Your task to perform on an android device: Search for sony triple a on target.com, select the first entry, and add it to the cart. Image 0: 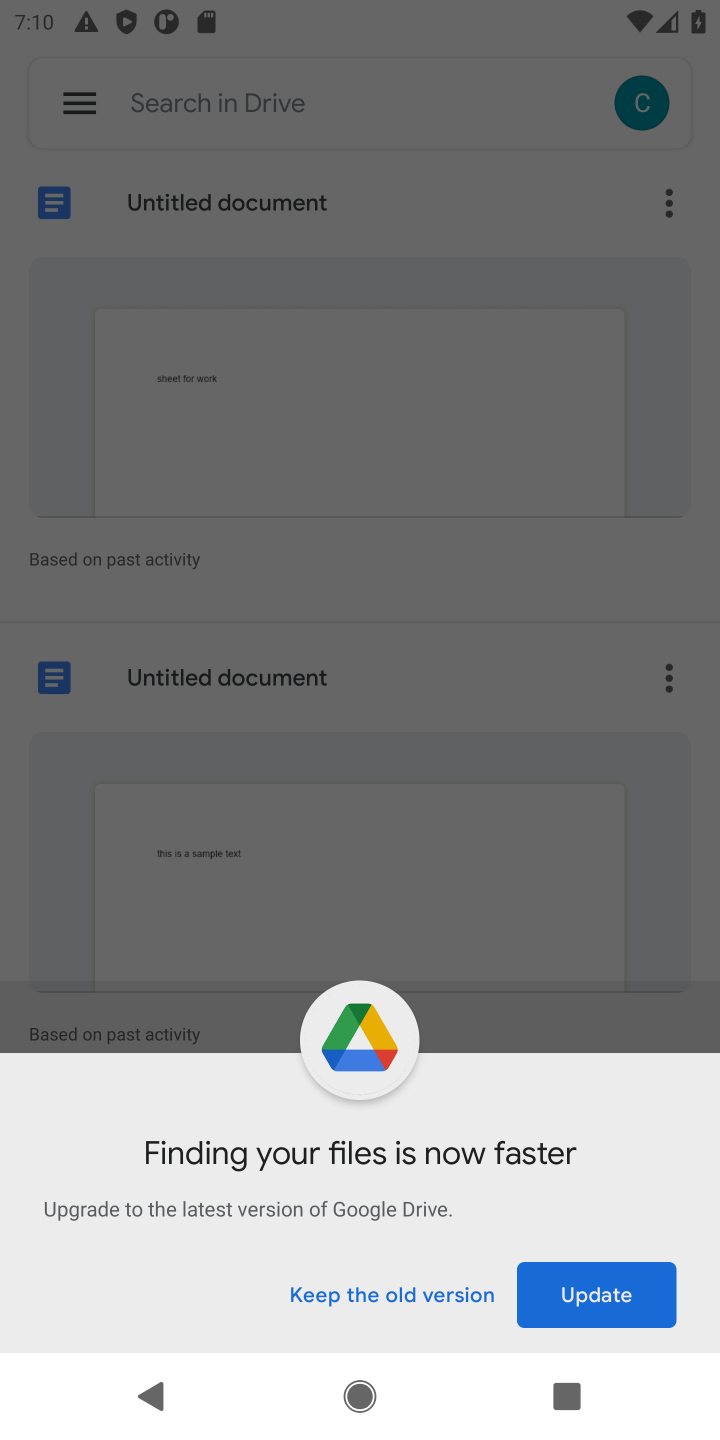
Step 0: press home button
Your task to perform on an android device: Search for sony triple a on target.com, select the first entry, and add it to the cart. Image 1: 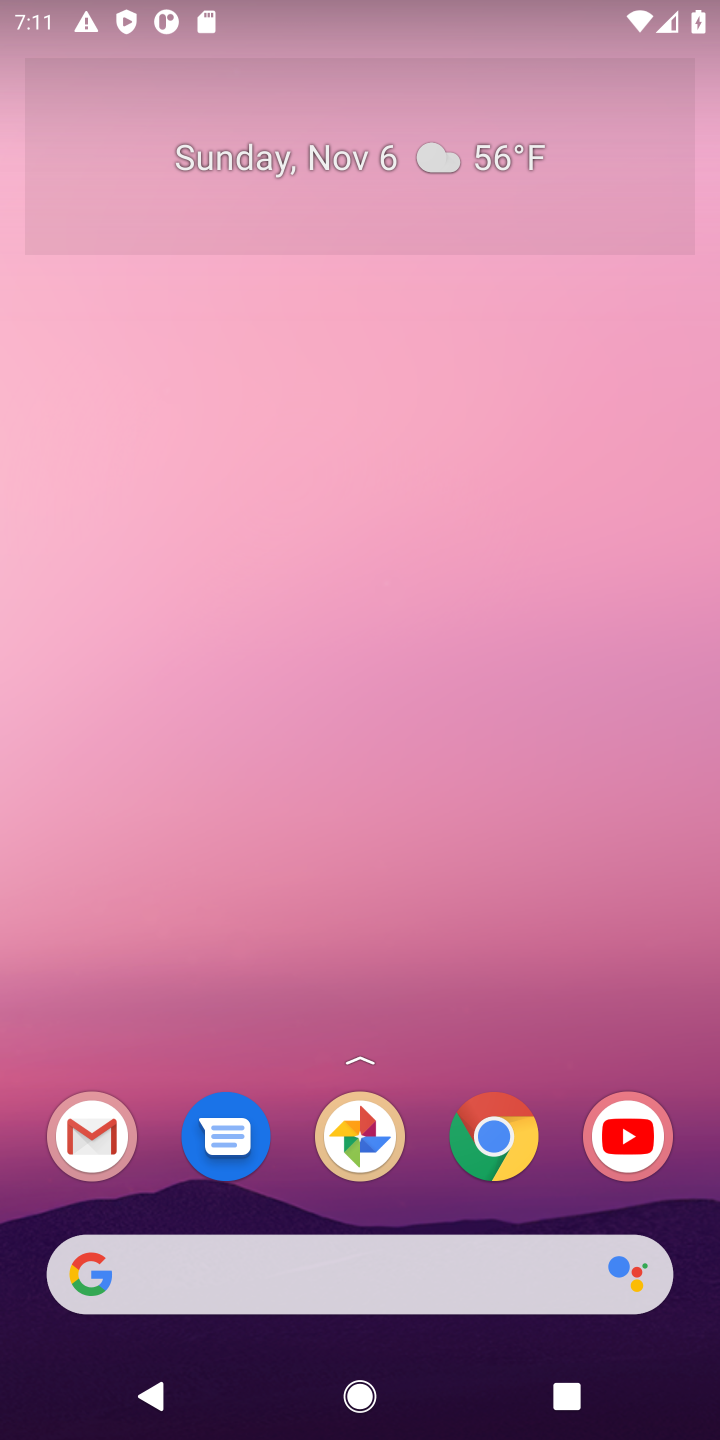
Step 1: click (401, 1261)
Your task to perform on an android device: Search for sony triple a on target.com, select the first entry, and add it to the cart. Image 2: 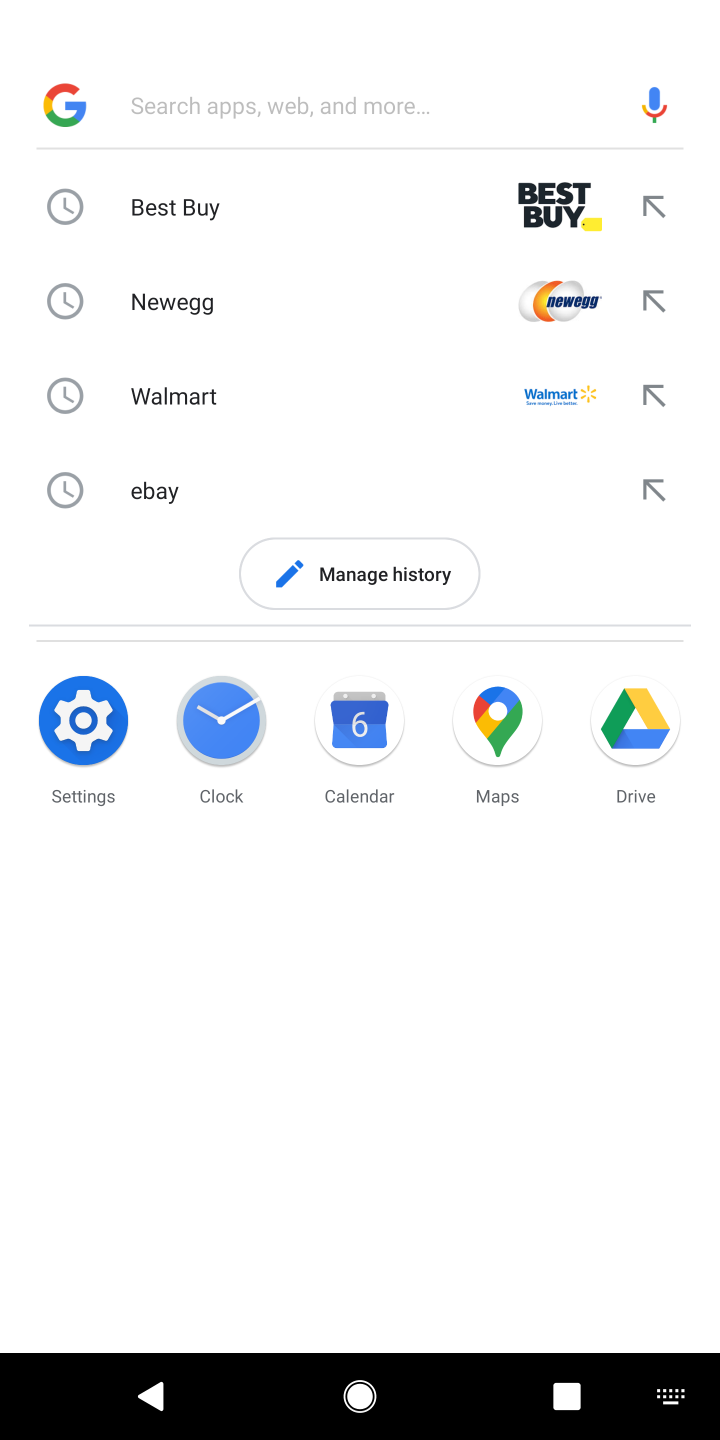
Step 2: type "target"
Your task to perform on an android device: Search for sony triple a on target.com, select the first entry, and add it to the cart. Image 3: 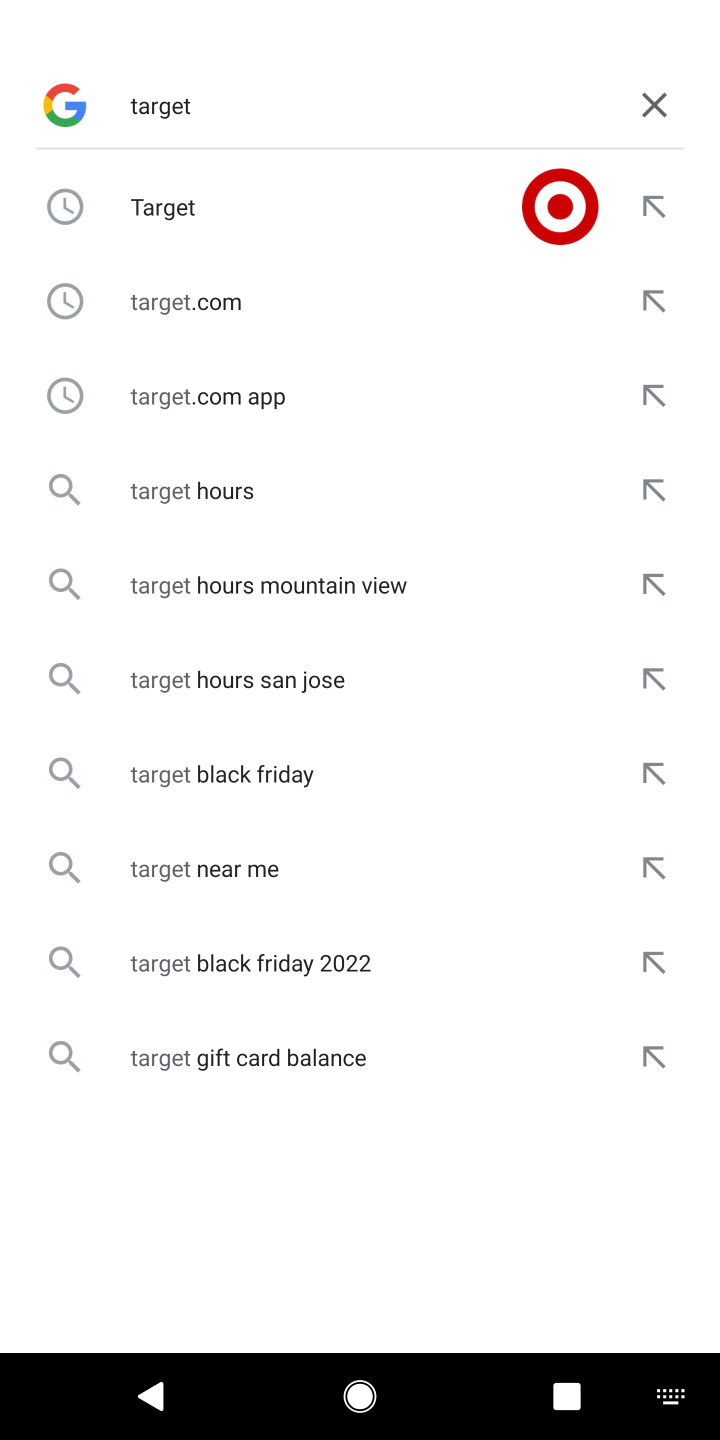
Step 3: click (310, 231)
Your task to perform on an android device: Search for sony triple a on target.com, select the first entry, and add it to the cart. Image 4: 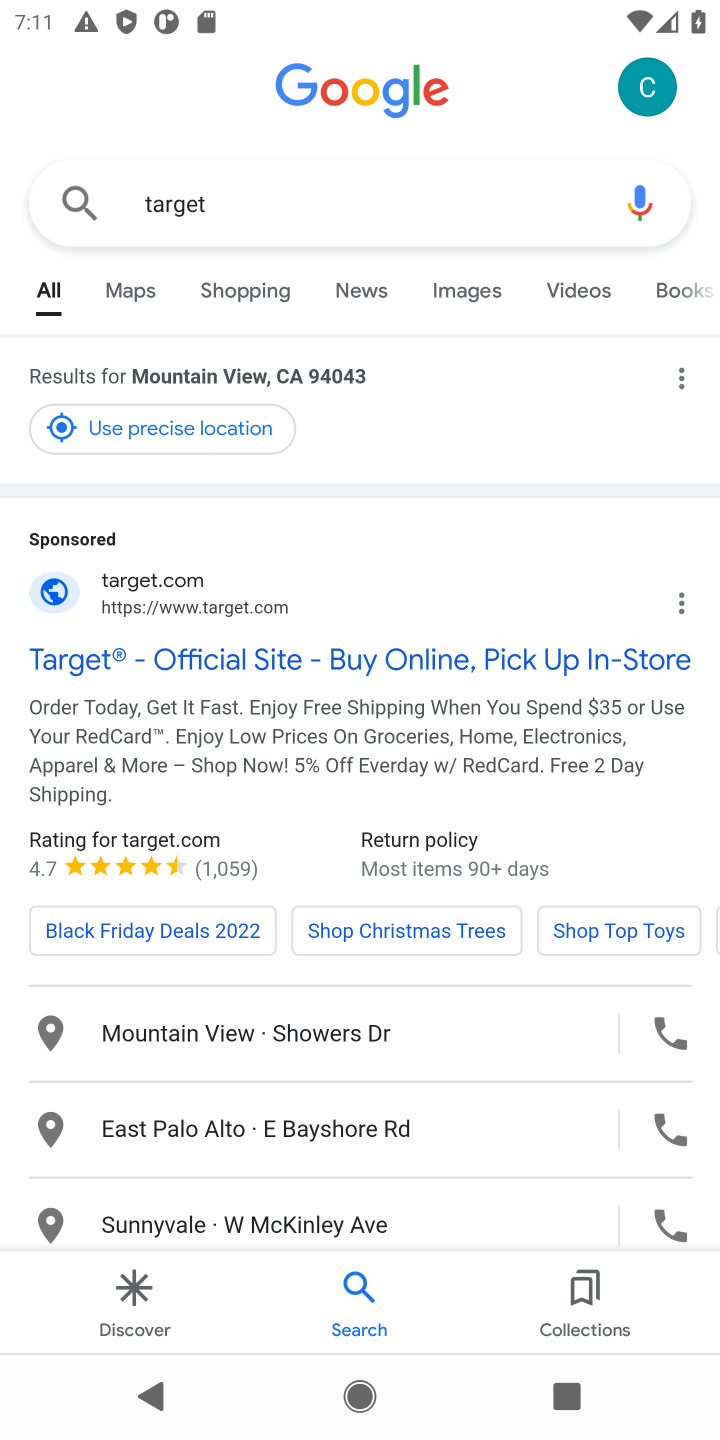
Step 4: click (210, 664)
Your task to perform on an android device: Search for sony triple a on target.com, select the first entry, and add it to the cart. Image 5: 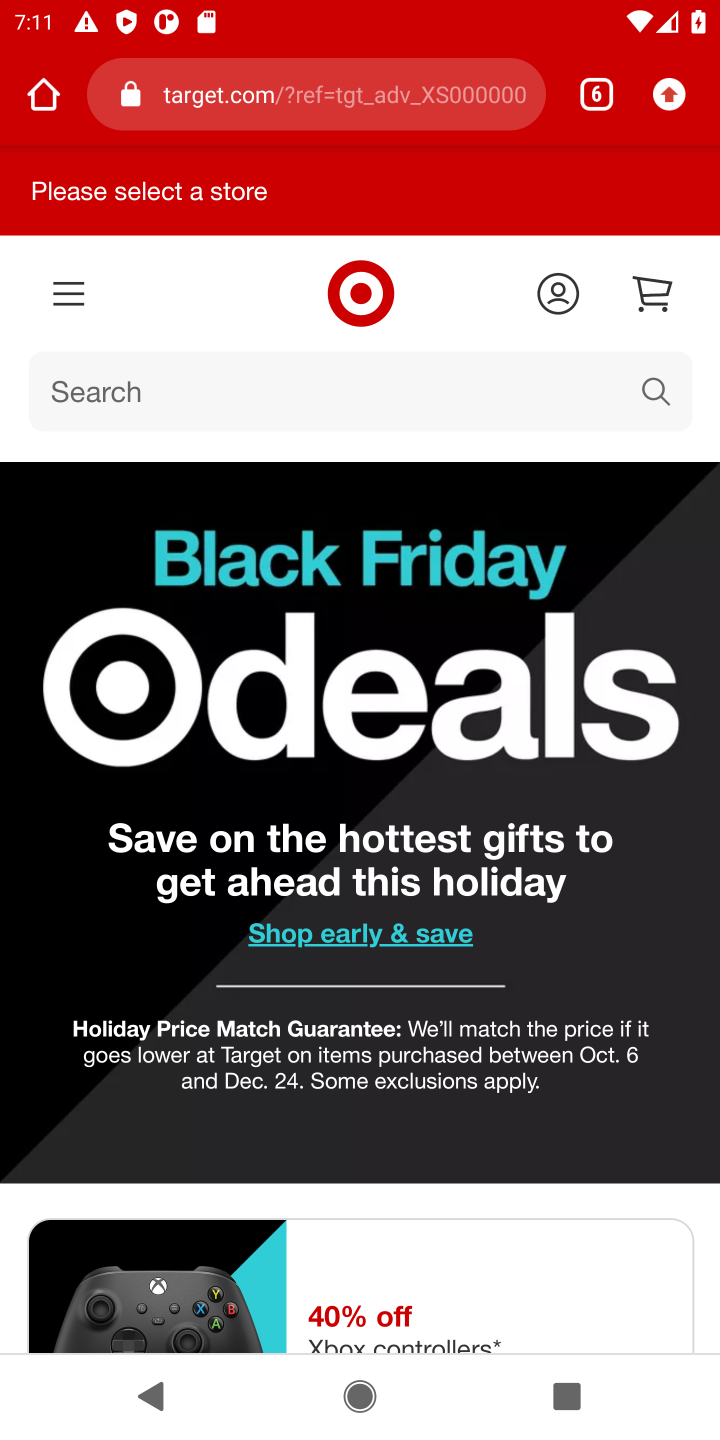
Step 5: click (219, 410)
Your task to perform on an android device: Search for sony triple a on target.com, select the first entry, and add it to the cart. Image 6: 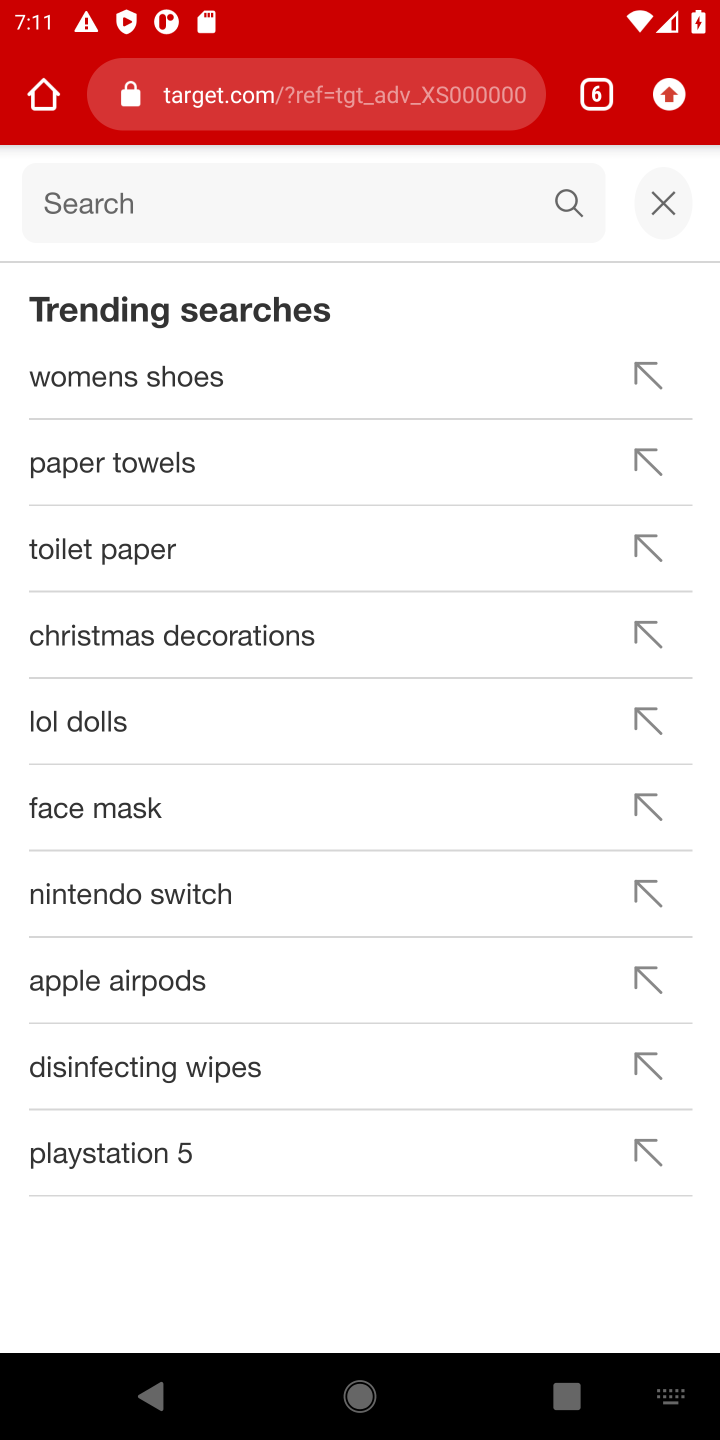
Step 6: type "sony triple A"
Your task to perform on an android device: Search for sony triple a on target.com, select the first entry, and add it to the cart. Image 7: 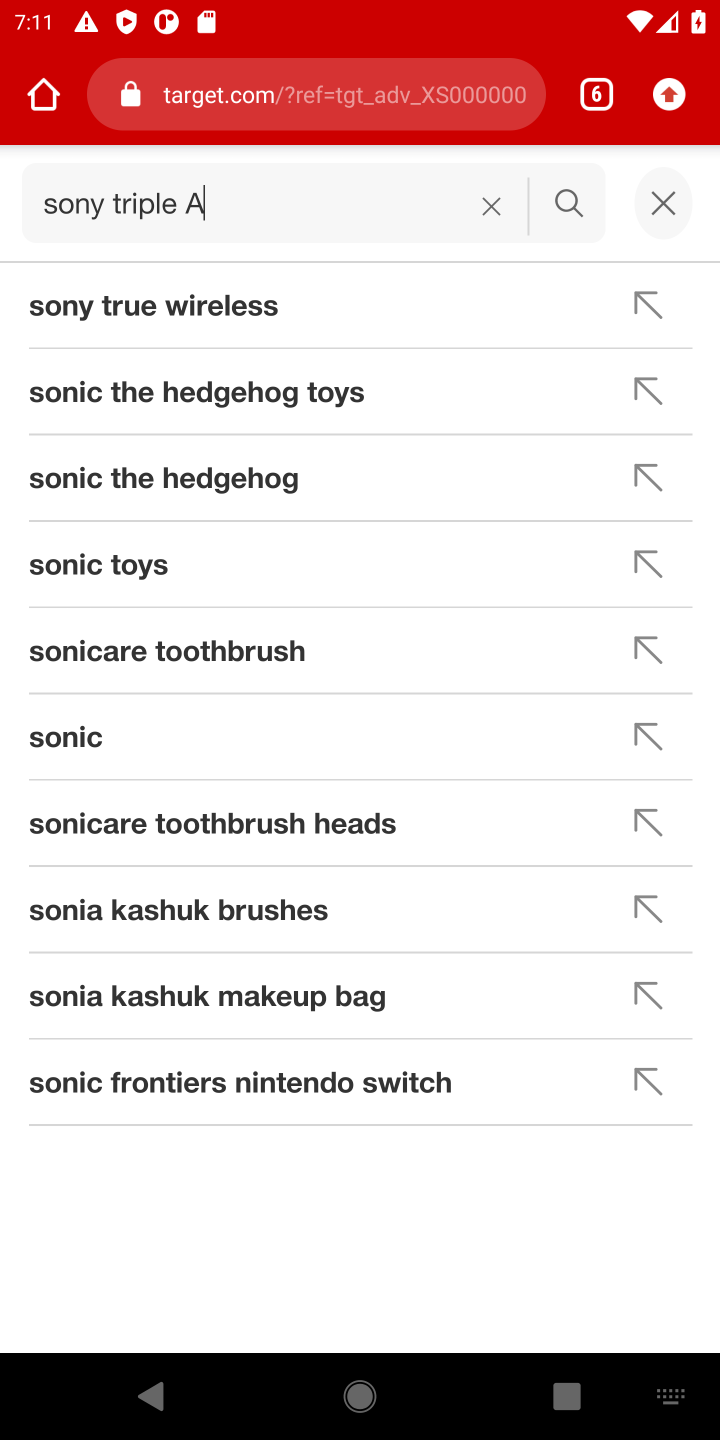
Step 7: click (566, 217)
Your task to perform on an android device: Search for sony triple a on target.com, select the first entry, and add it to the cart. Image 8: 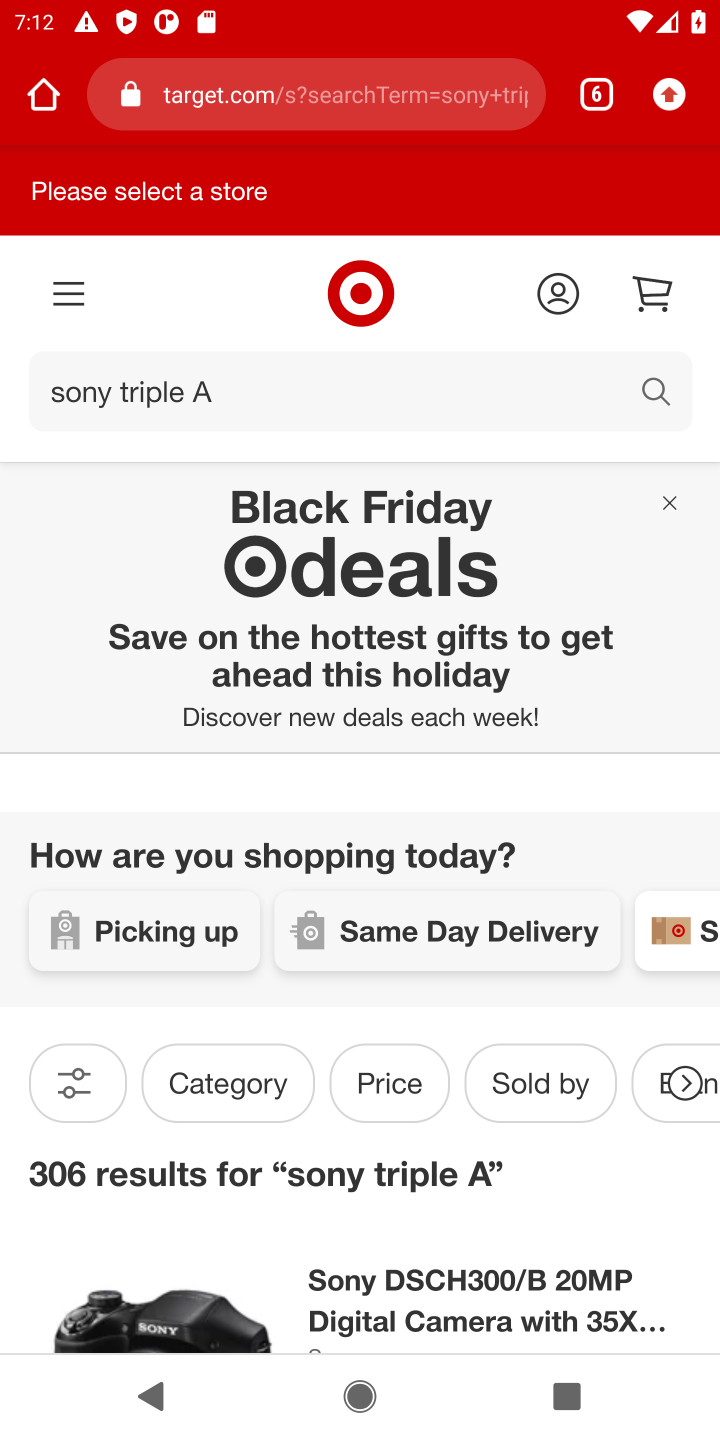
Step 8: task complete